Your task to perform on an android device: Search for "logitech g pro" on amazon.com, select the first entry, and add it to the cart. Image 0: 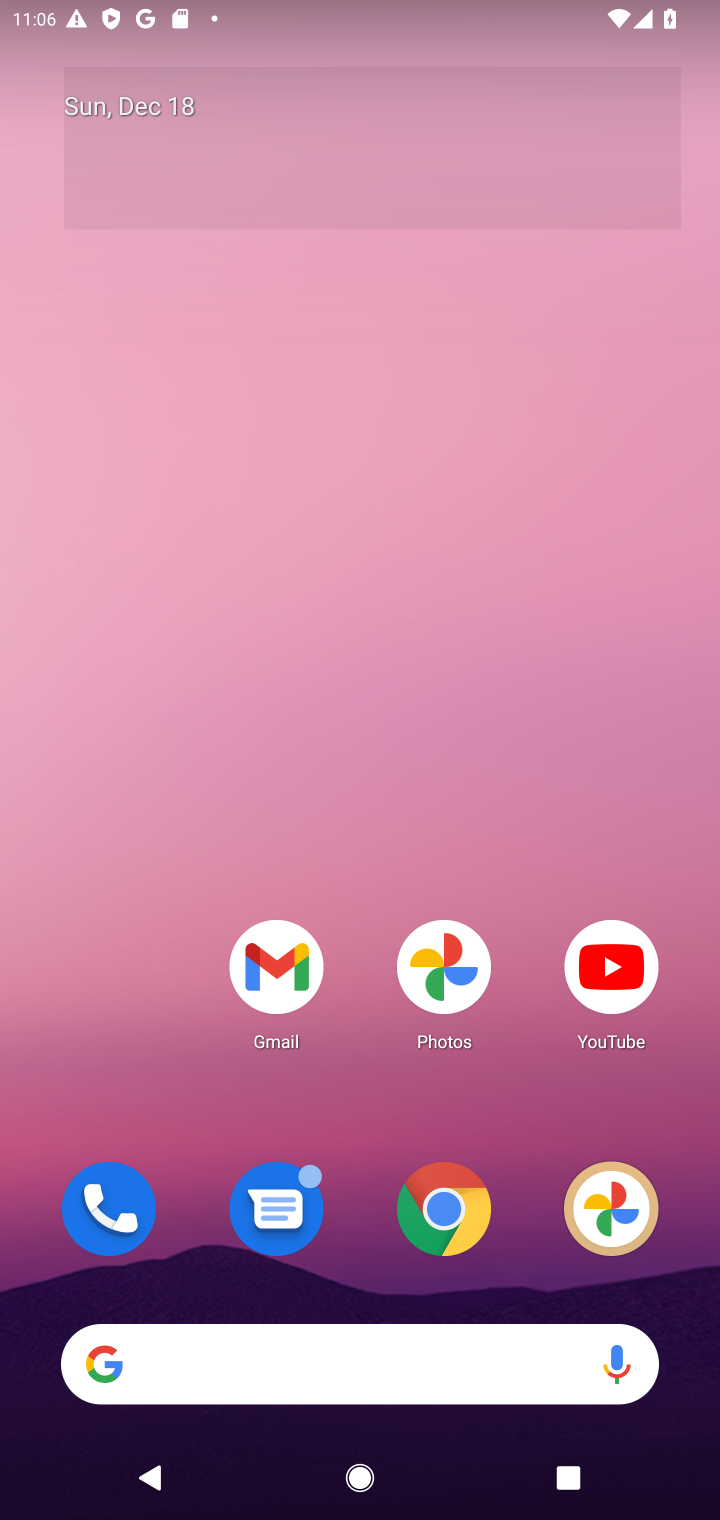
Step 0: click (466, 1224)
Your task to perform on an android device: Search for "logitech g pro" on amazon.com, select the first entry, and add it to the cart. Image 1: 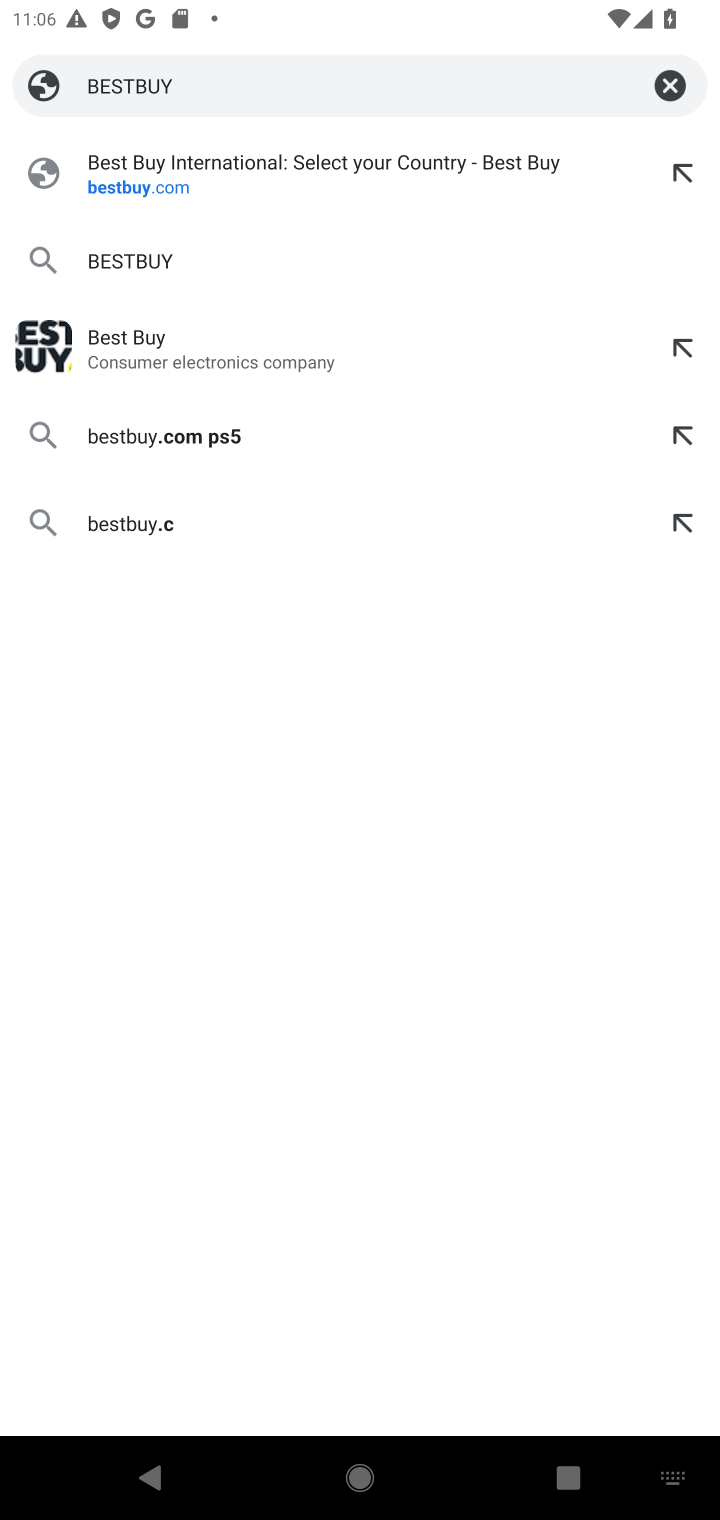
Step 1: click (661, 90)
Your task to perform on an android device: Search for "logitech g pro" on amazon.com, select the first entry, and add it to the cart. Image 2: 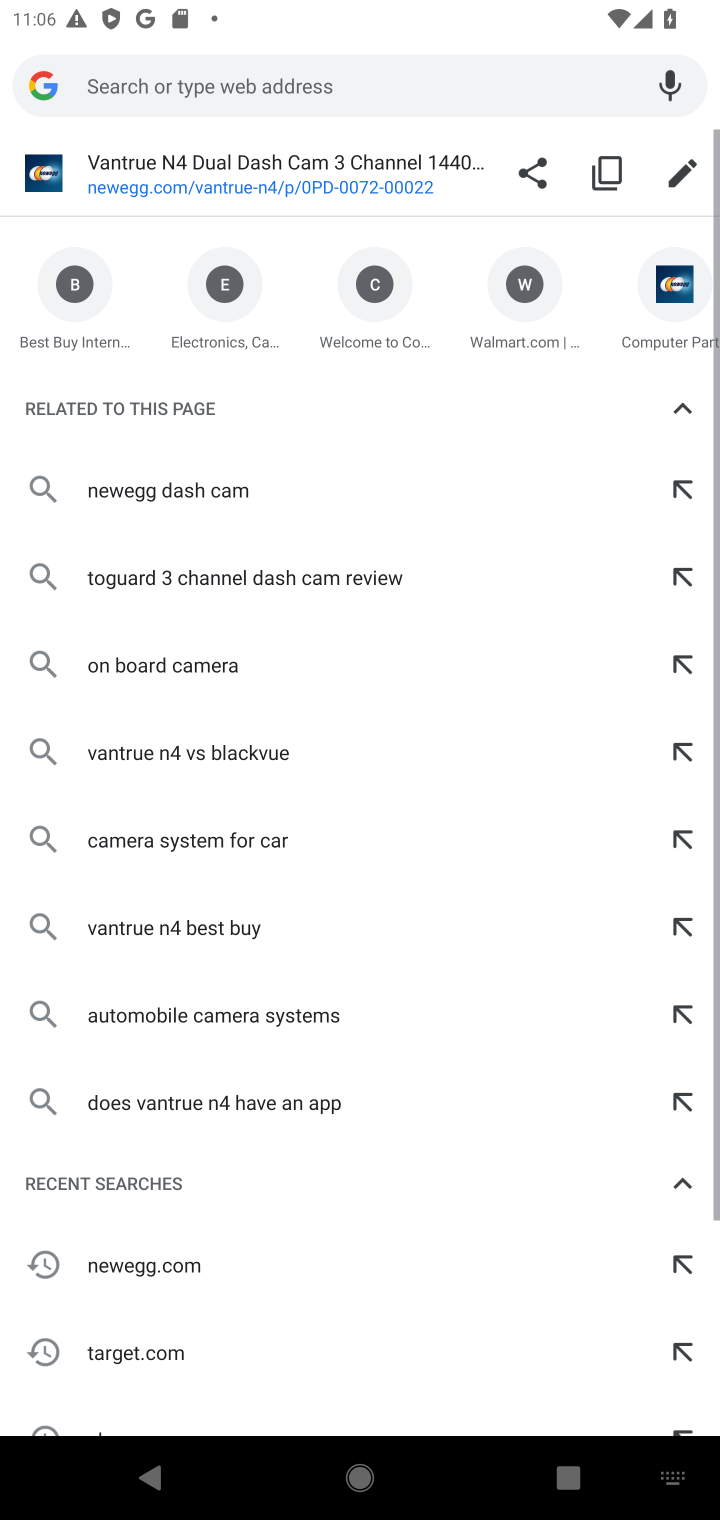
Step 2: click (531, 80)
Your task to perform on an android device: Search for "logitech g pro" on amazon.com, select the first entry, and add it to the cart. Image 3: 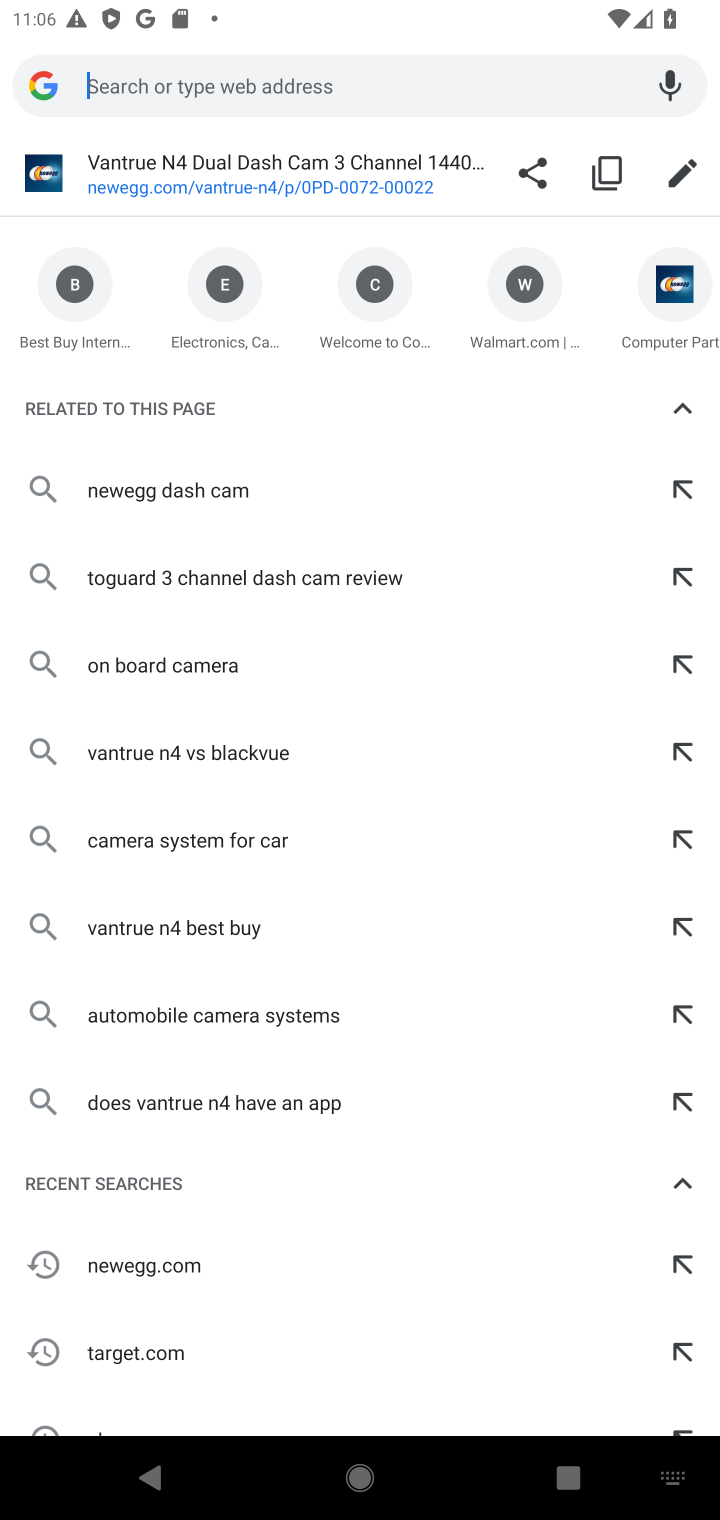
Step 3: type "AMAZON"
Your task to perform on an android device: Search for "logitech g pro" on amazon.com, select the first entry, and add it to the cart. Image 4: 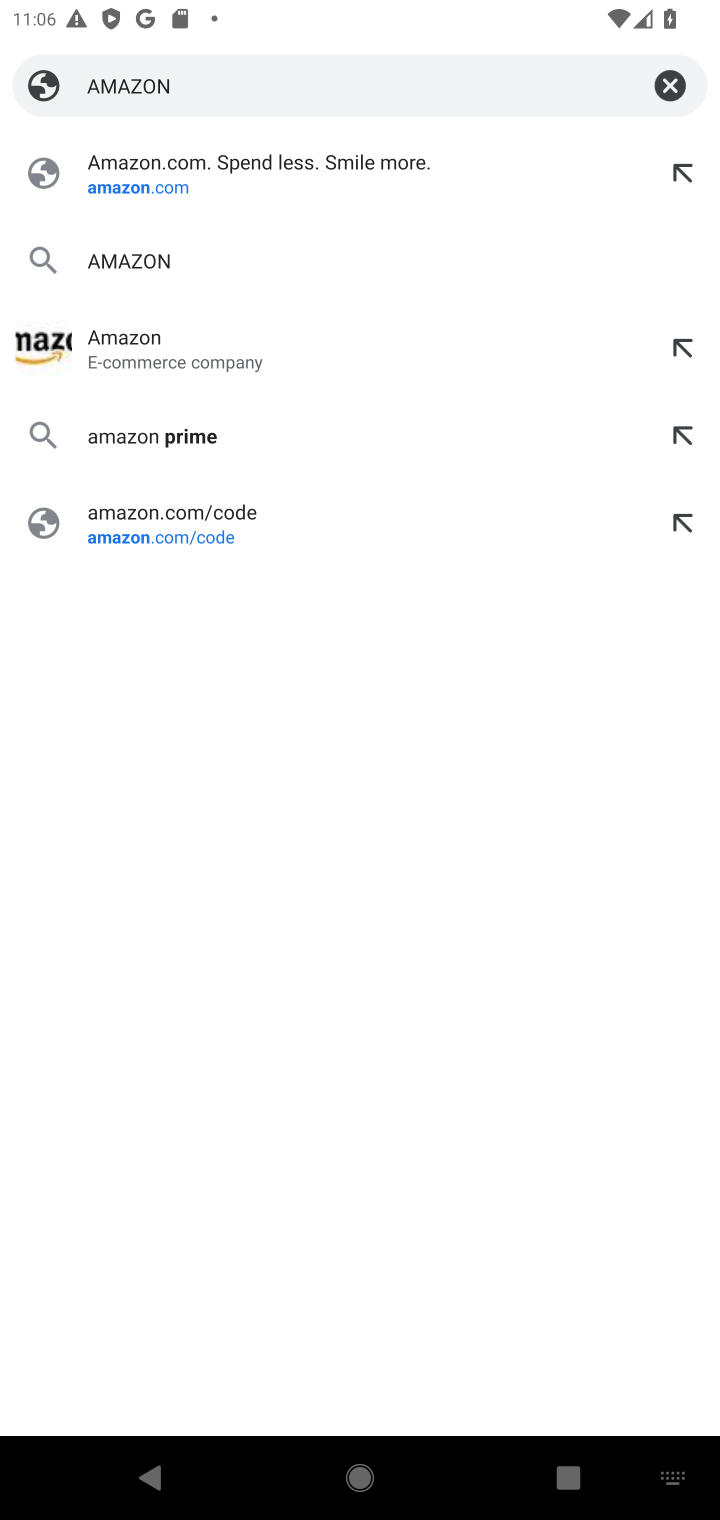
Step 4: click (274, 174)
Your task to perform on an android device: Search for "logitech g pro" on amazon.com, select the first entry, and add it to the cart. Image 5: 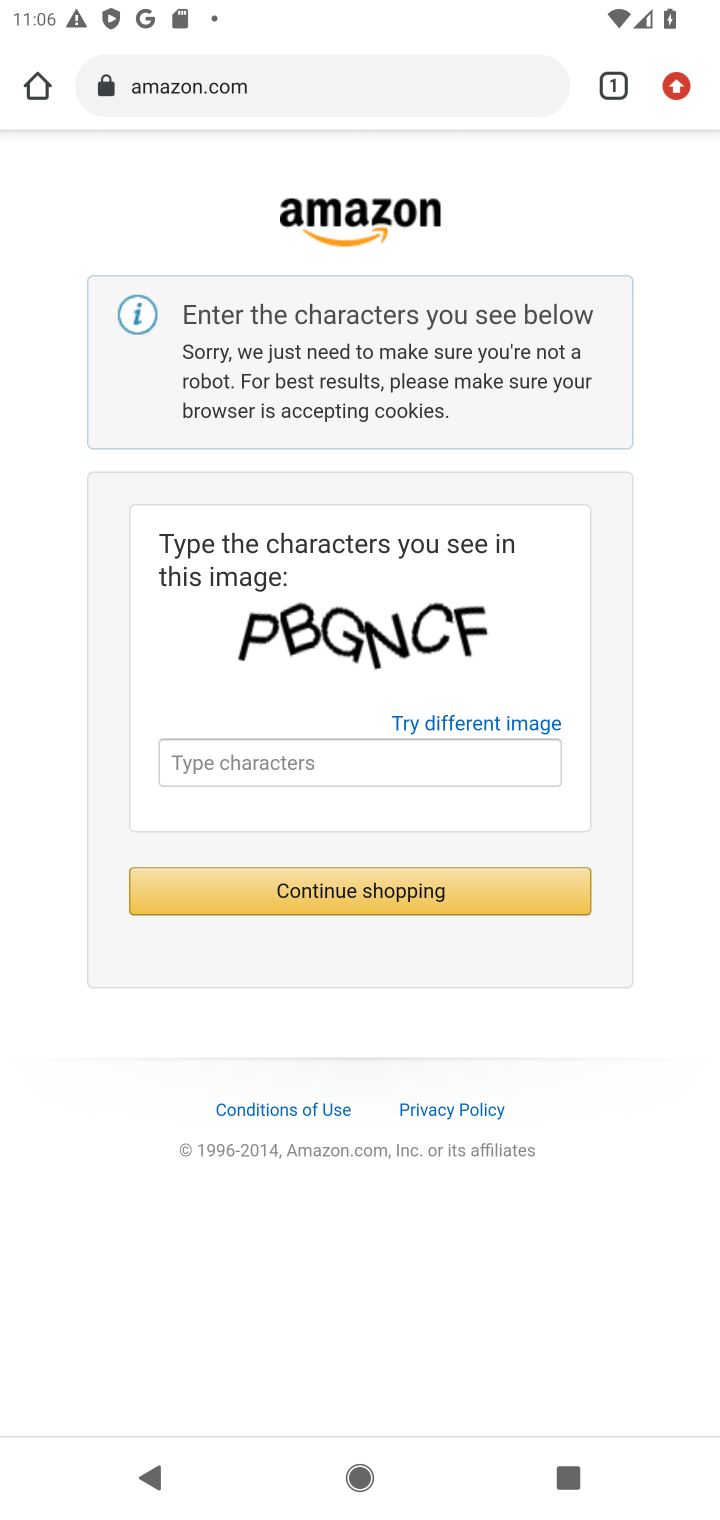
Step 5: click (342, 769)
Your task to perform on an android device: Search for "logitech g pro" on amazon.com, select the first entry, and add it to the cart. Image 6: 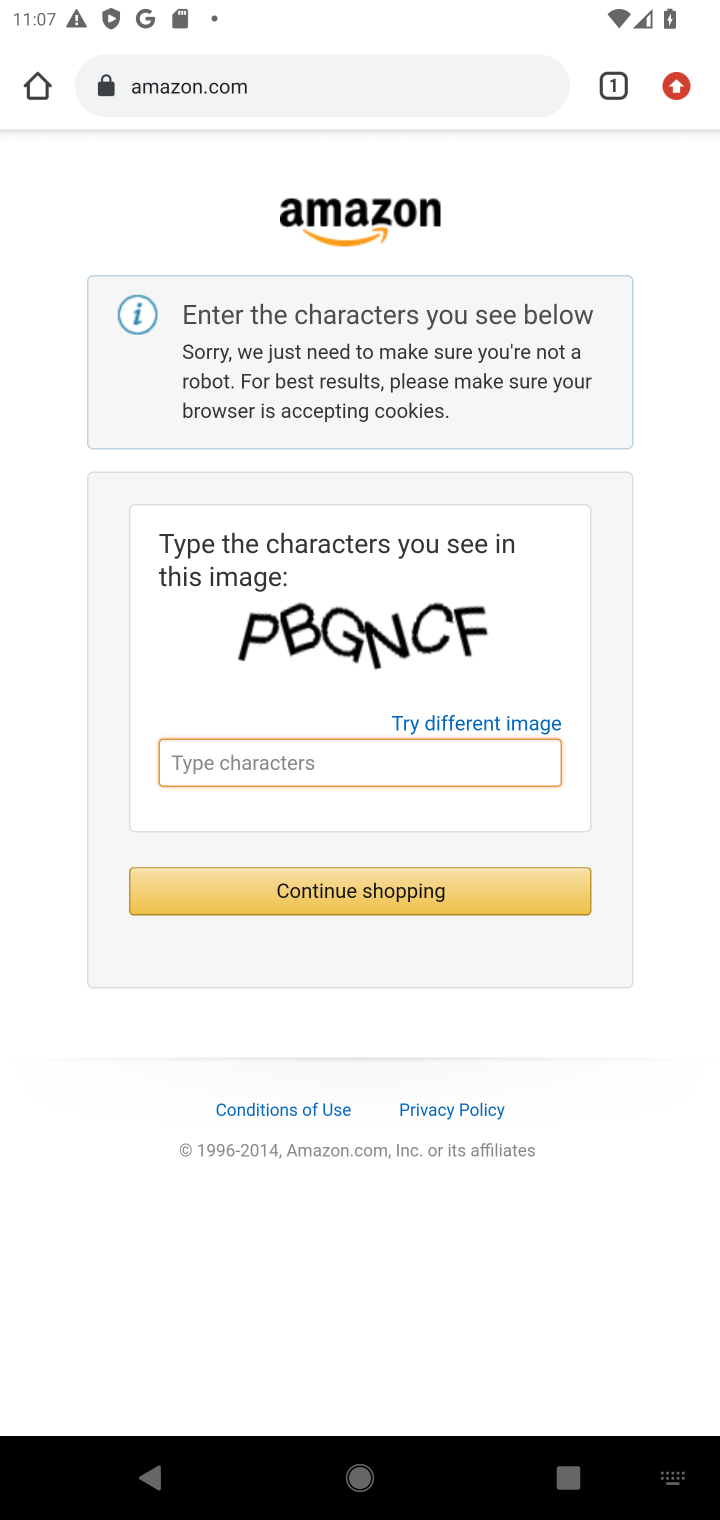
Step 6: type "PBGNCF"
Your task to perform on an android device: Search for "logitech g pro" on amazon.com, select the first entry, and add it to the cart. Image 7: 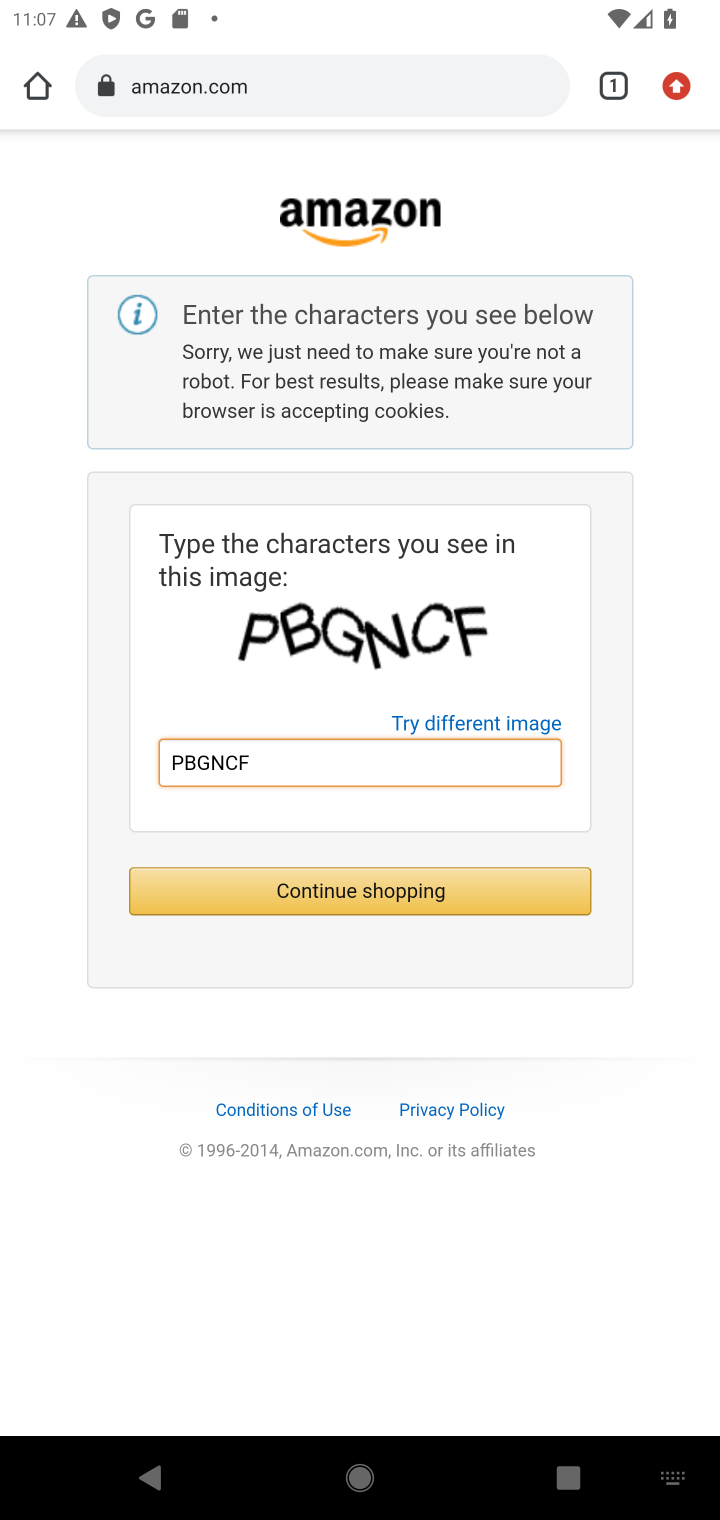
Step 7: click (326, 891)
Your task to perform on an android device: Search for "logitech g pro" on amazon.com, select the first entry, and add it to the cart. Image 8: 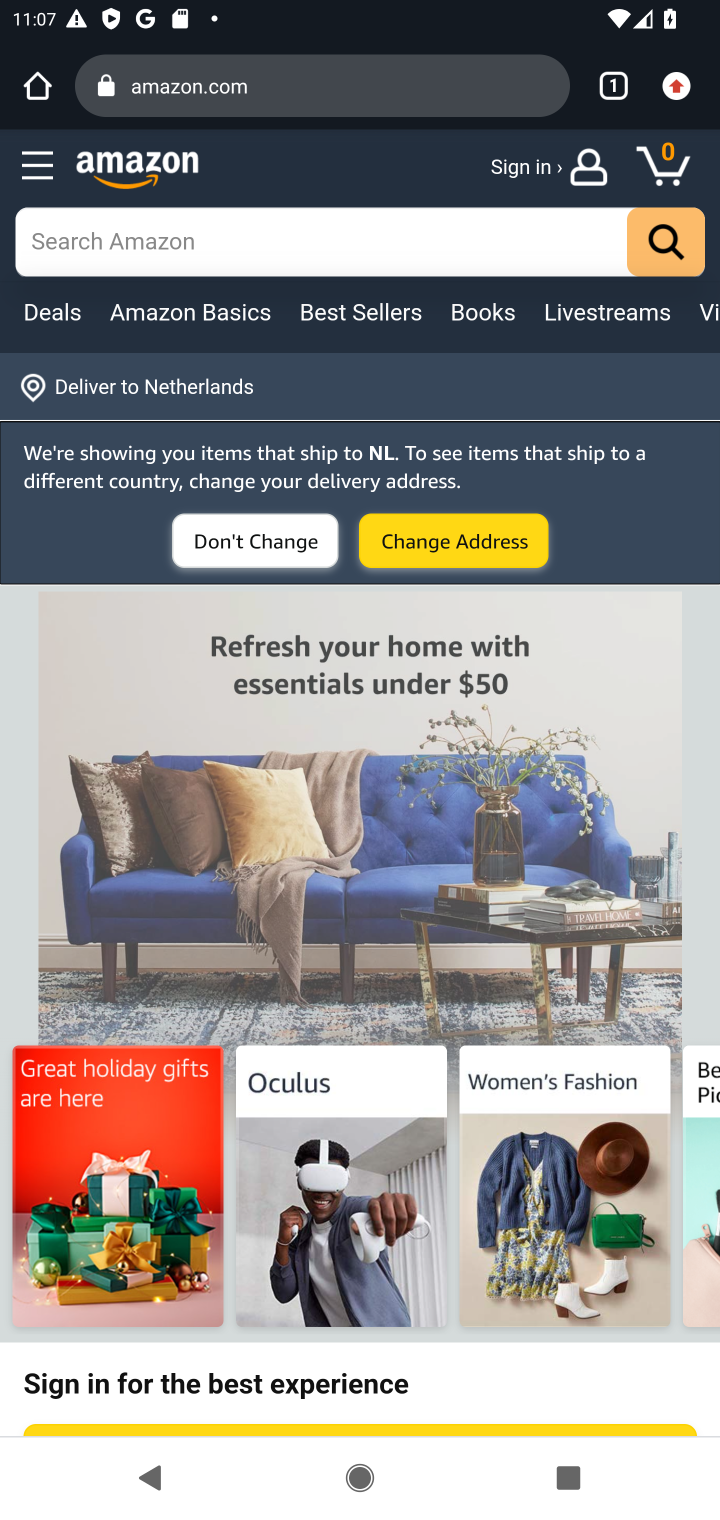
Step 8: click (423, 251)
Your task to perform on an android device: Search for "logitech g pro" on amazon.com, select the first entry, and add it to the cart. Image 9: 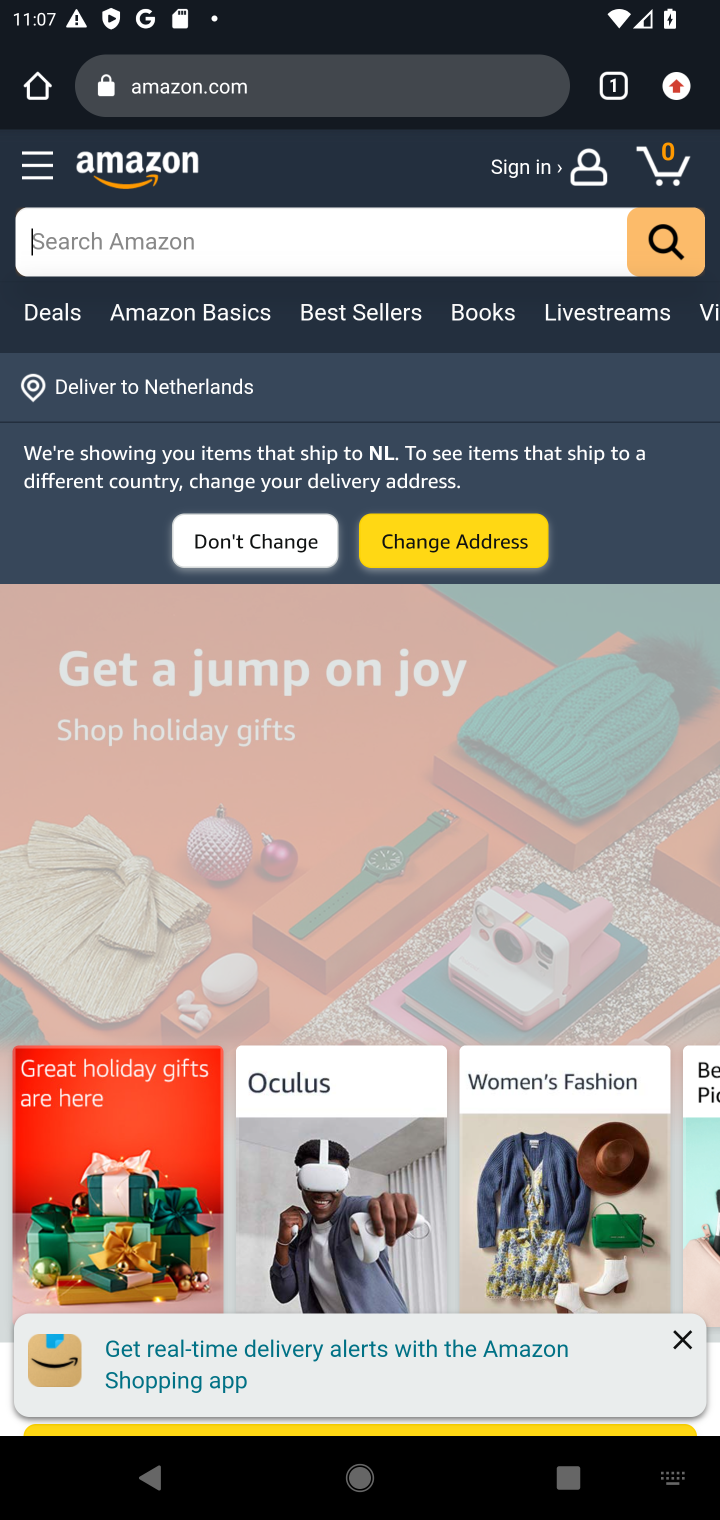
Step 9: type "LOGITECH G PRO"
Your task to perform on an android device: Search for "logitech g pro" on amazon.com, select the first entry, and add it to the cart. Image 10: 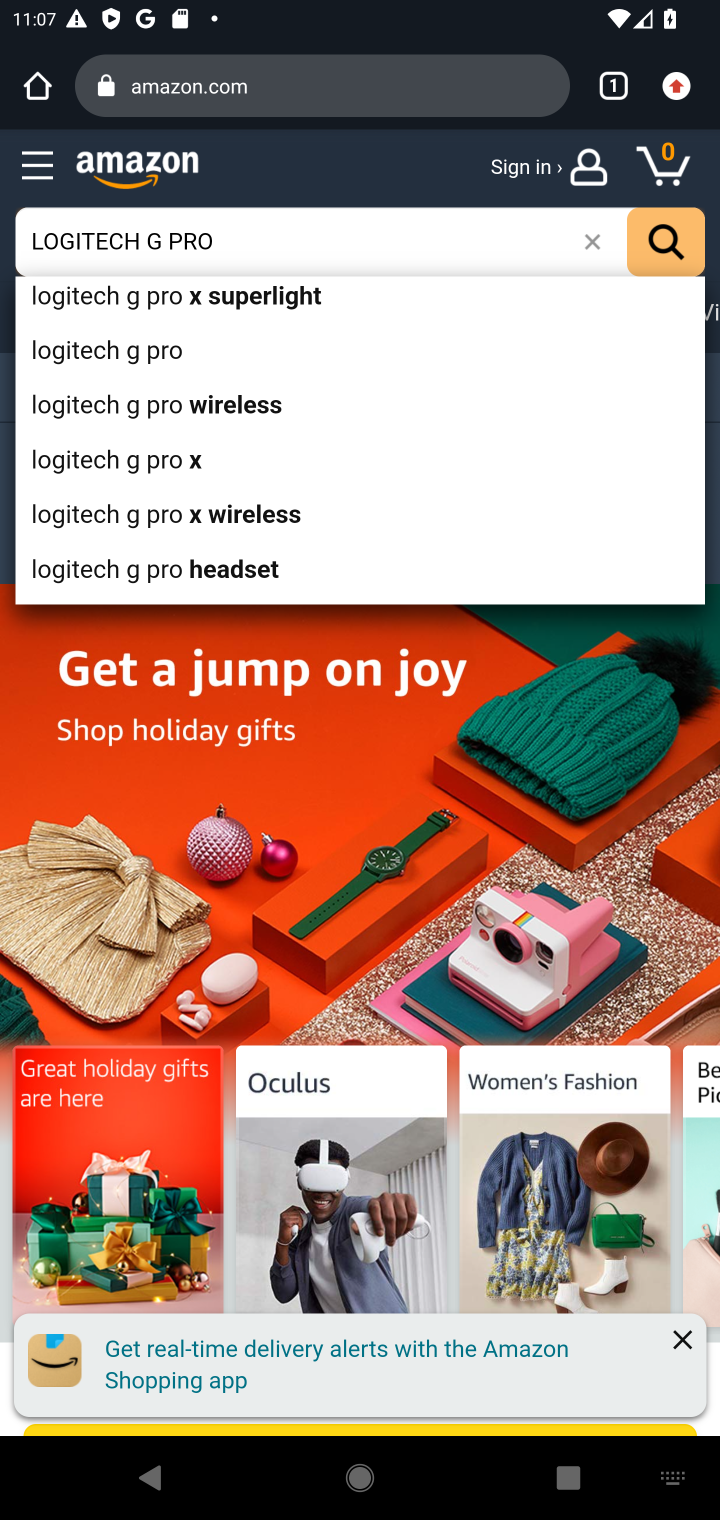
Step 10: click (226, 283)
Your task to perform on an android device: Search for "logitech g pro" on amazon.com, select the first entry, and add it to the cart. Image 11: 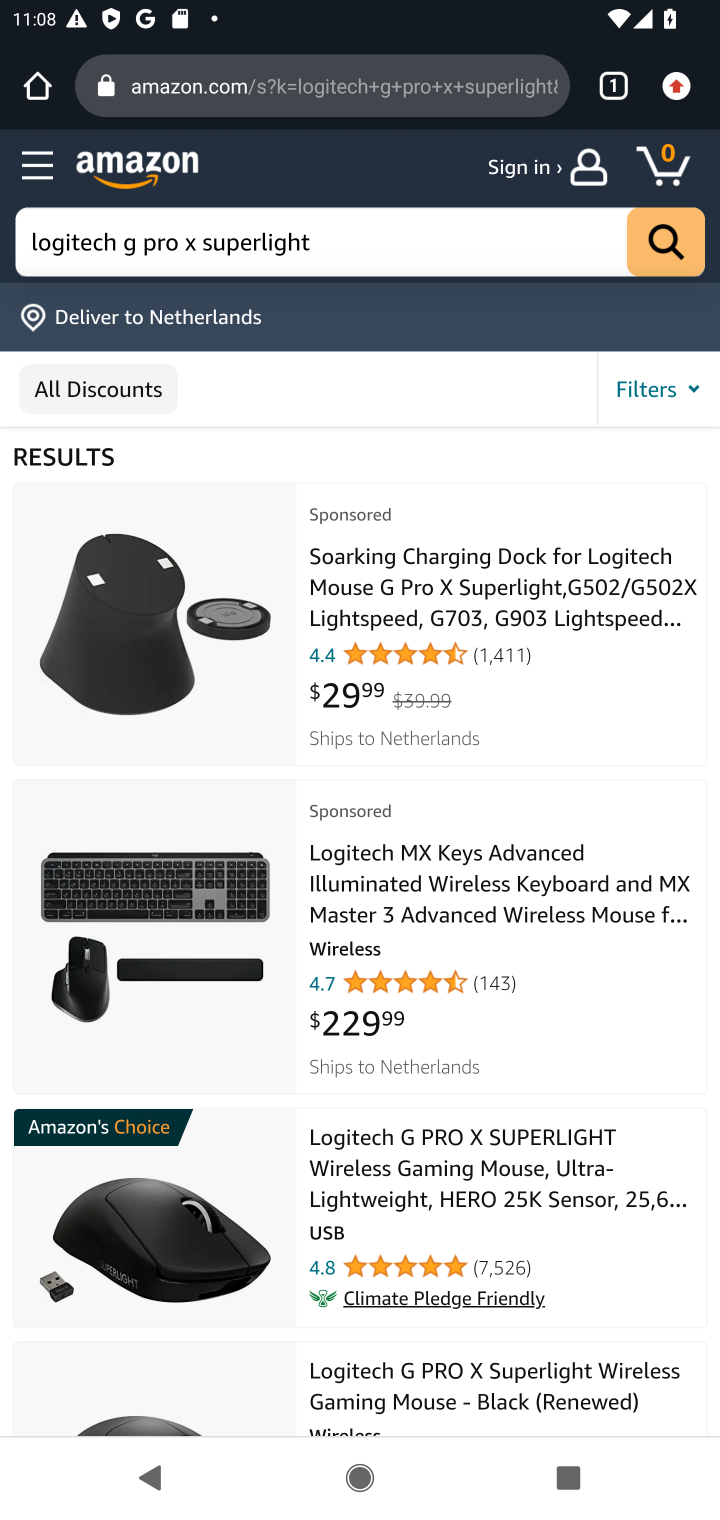
Step 11: click (512, 584)
Your task to perform on an android device: Search for "logitech g pro" on amazon.com, select the first entry, and add it to the cart. Image 12: 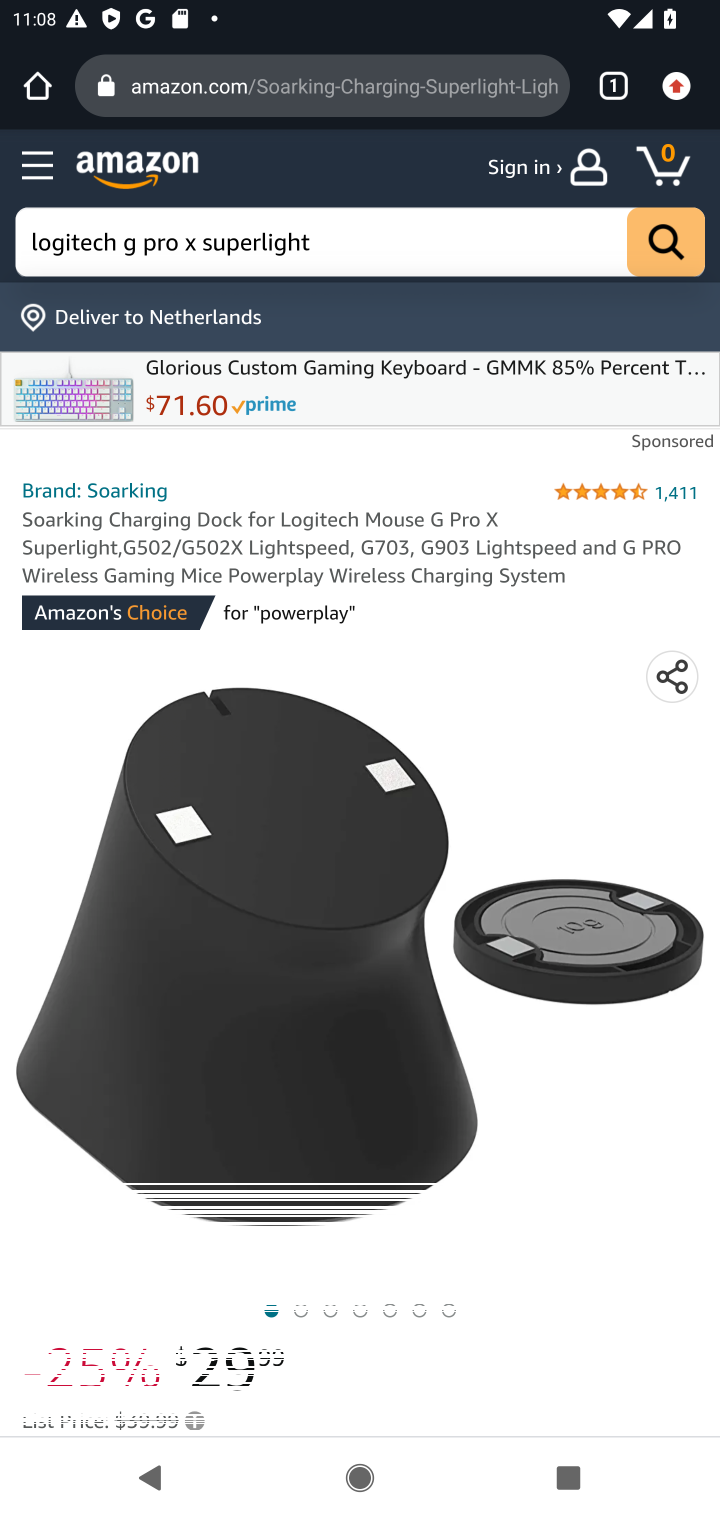
Step 12: drag from (416, 1325) to (383, 532)
Your task to perform on an android device: Search for "logitech g pro" on amazon.com, select the first entry, and add it to the cart. Image 13: 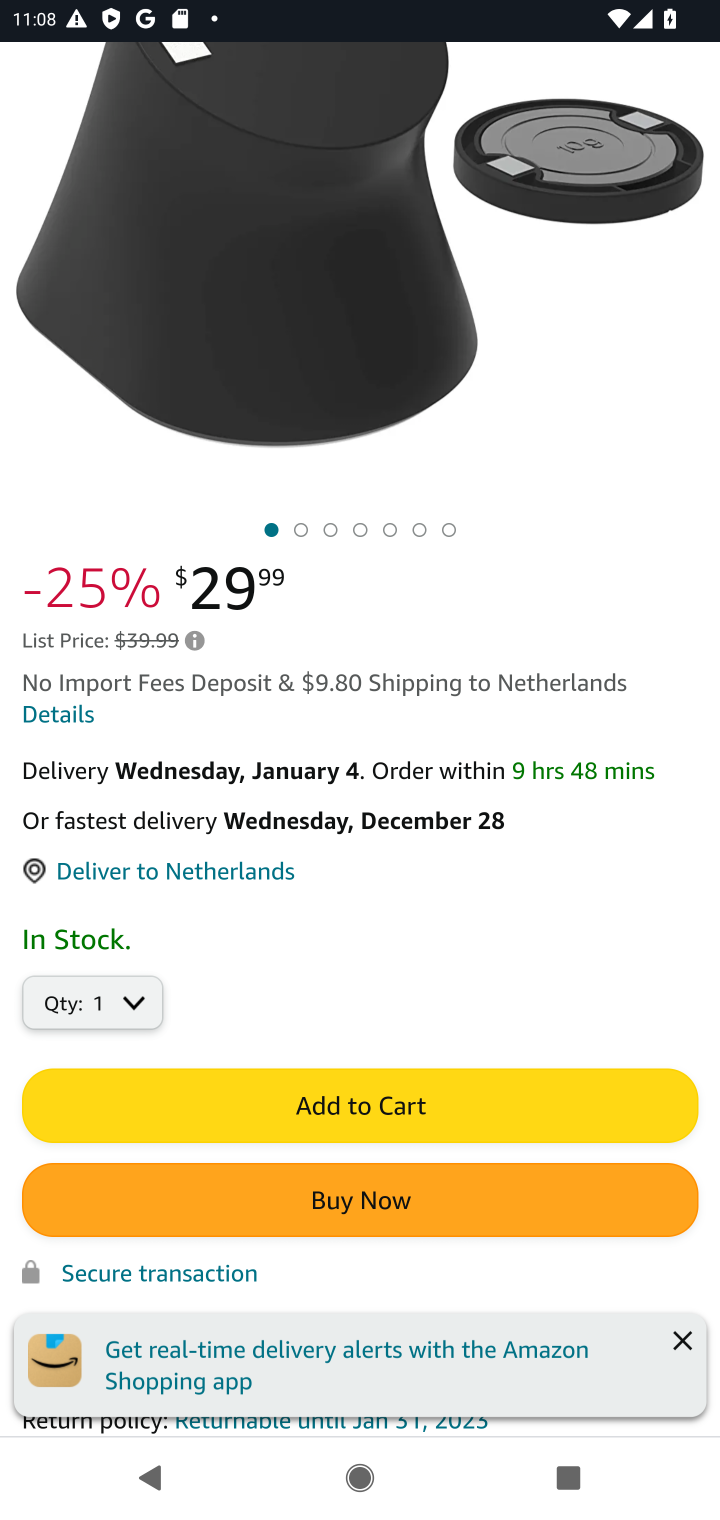
Step 13: click (368, 1105)
Your task to perform on an android device: Search for "logitech g pro" on amazon.com, select the first entry, and add it to the cart. Image 14: 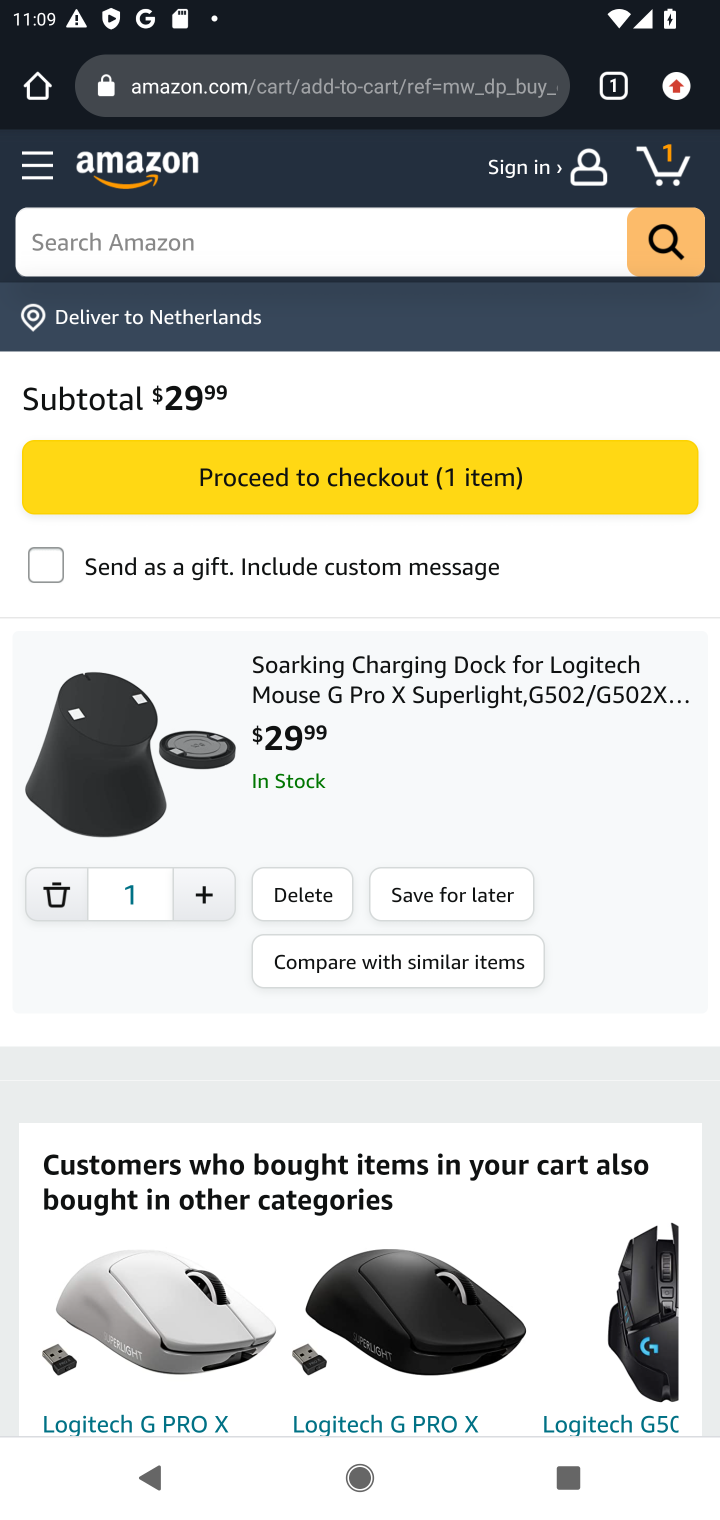
Step 14: click (421, 476)
Your task to perform on an android device: Search for "logitech g pro" on amazon.com, select the first entry, and add it to the cart. Image 15: 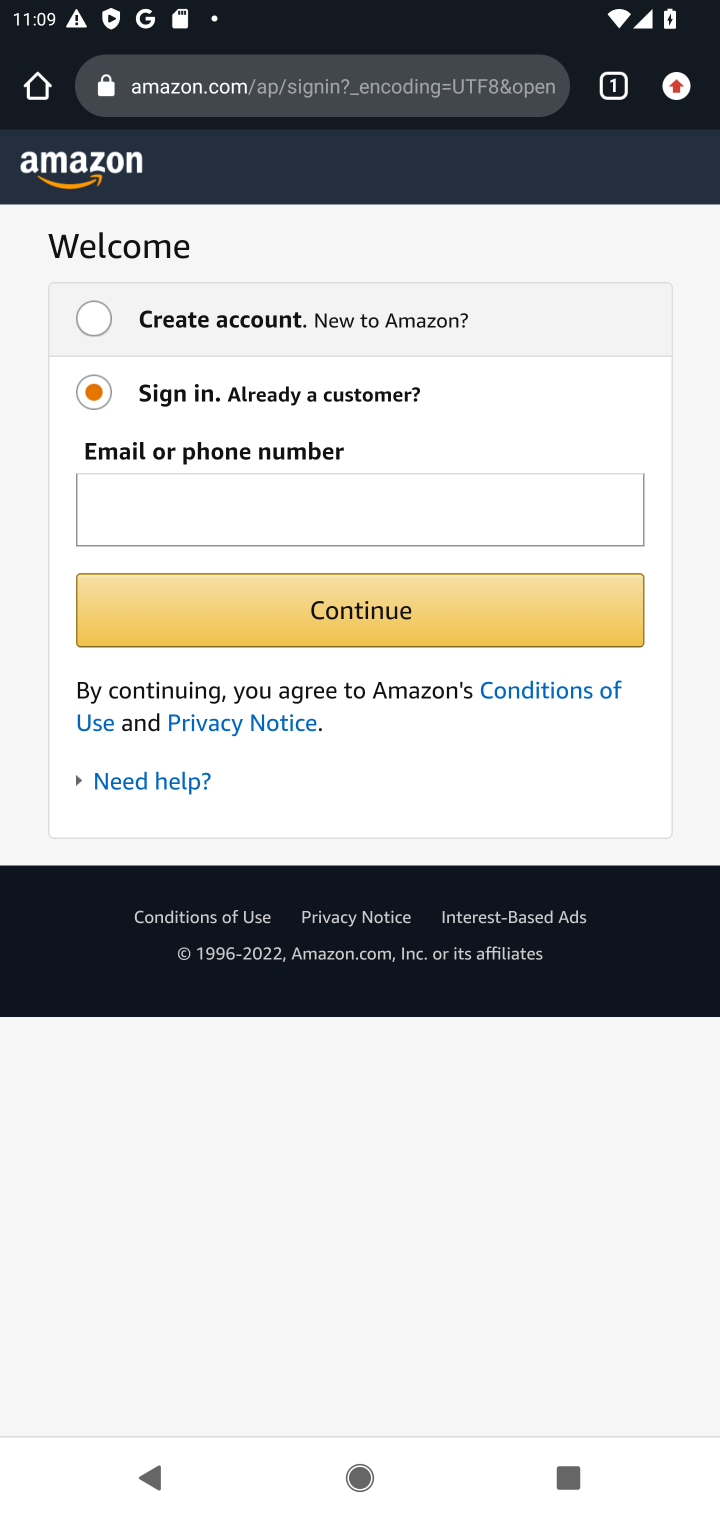
Step 15: task complete